Your task to perform on an android device: check google app version Image 0: 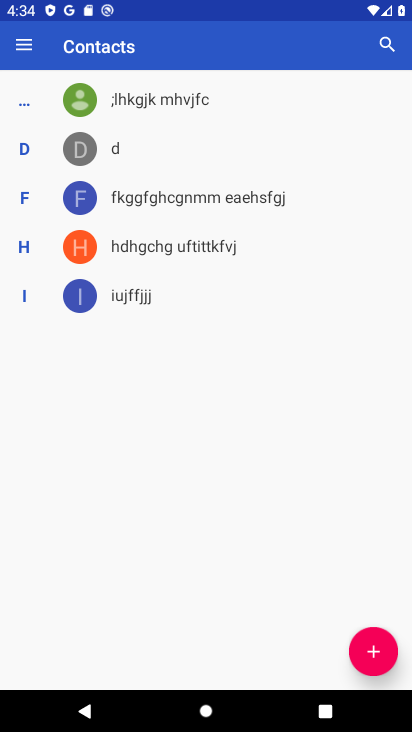
Step 0: press home button
Your task to perform on an android device: check google app version Image 1: 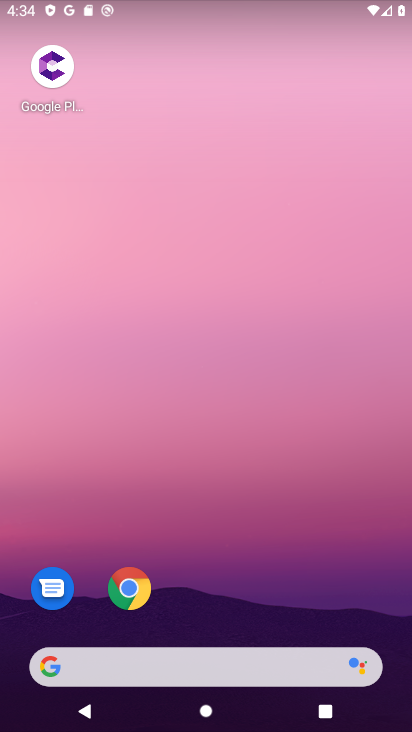
Step 1: drag from (335, 595) to (290, 95)
Your task to perform on an android device: check google app version Image 2: 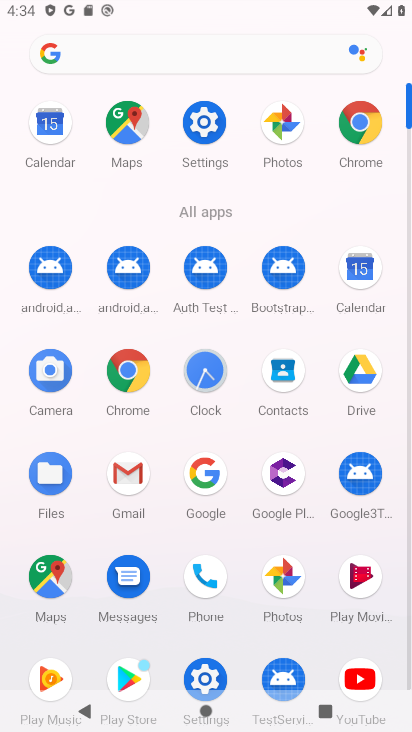
Step 2: click (191, 467)
Your task to perform on an android device: check google app version Image 3: 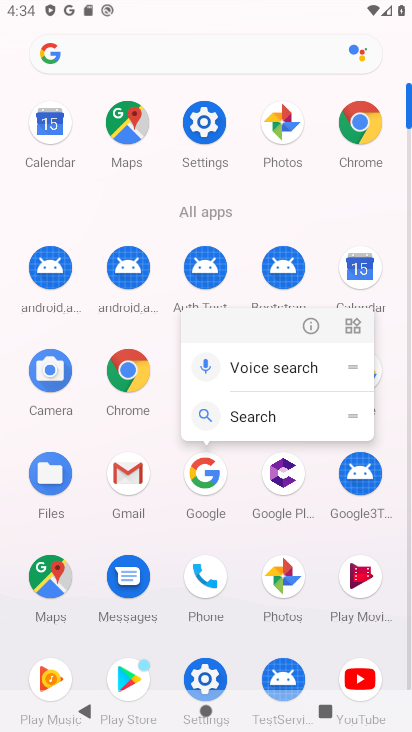
Step 3: click (313, 324)
Your task to perform on an android device: check google app version Image 4: 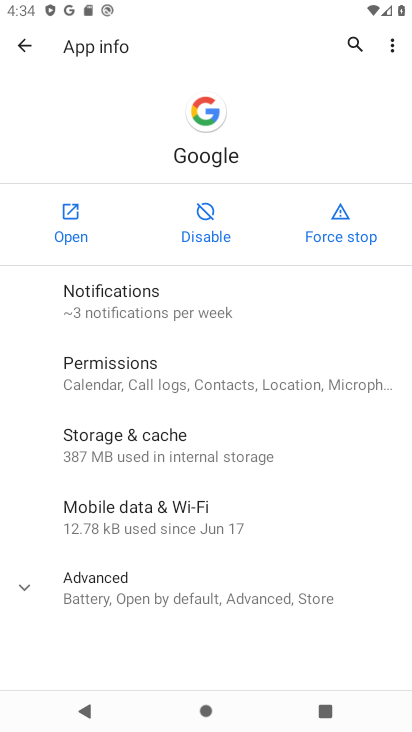
Step 4: click (173, 609)
Your task to perform on an android device: check google app version Image 5: 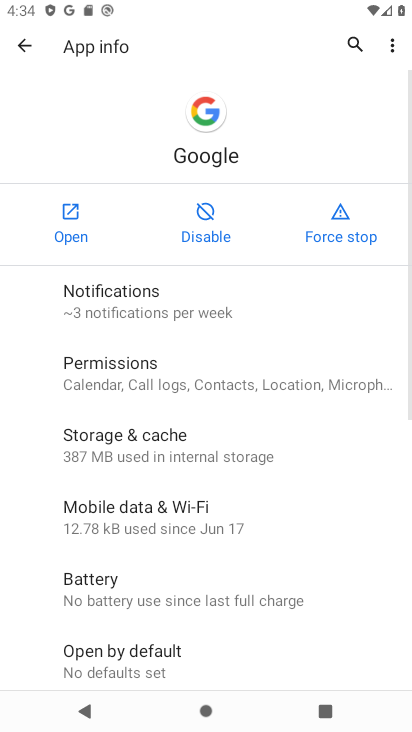
Step 5: task complete